Your task to perform on an android device: Open Youtube and go to the subscriptions tab Image 0: 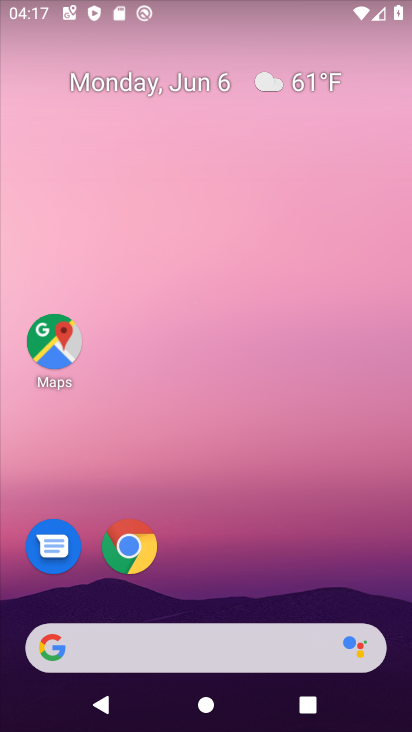
Step 0: press home button
Your task to perform on an android device: Open Youtube and go to the subscriptions tab Image 1: 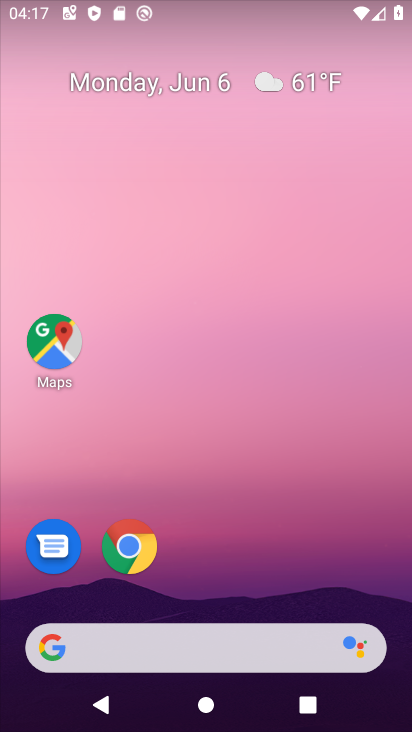
Step 1: drag from (249, 611) to (269, 239)
Your task to perform on an android device: Open Youtube and go to the subscriptions tab Image 2: 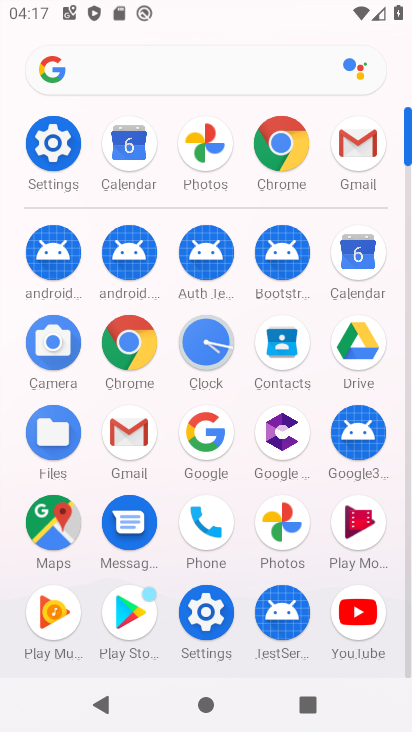
Step 2: click (366, 601)
Your task to perform on an android device: Open Youtube and go to the subscriptions tab Image 3: 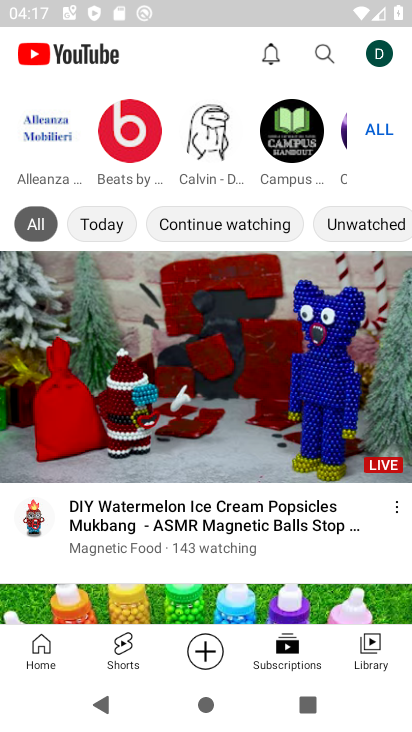
Step 3: click (285, 648)
Your task to perform on an android device: Open Youtube and go to the subscriptions tab Image 4: 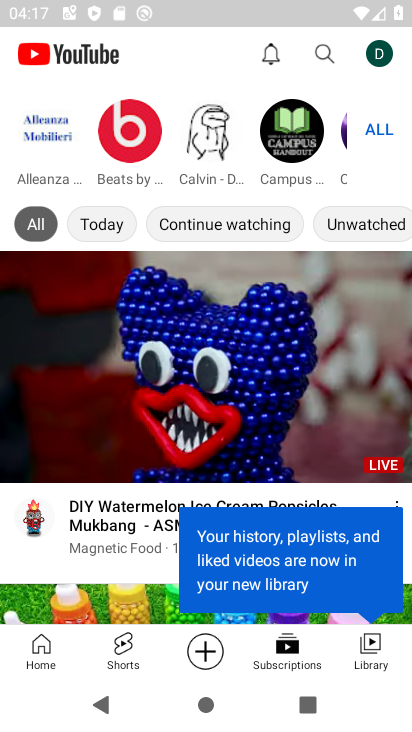
Step 4: task complete